Your task to perform on an android device: change notifications settings Image 0: 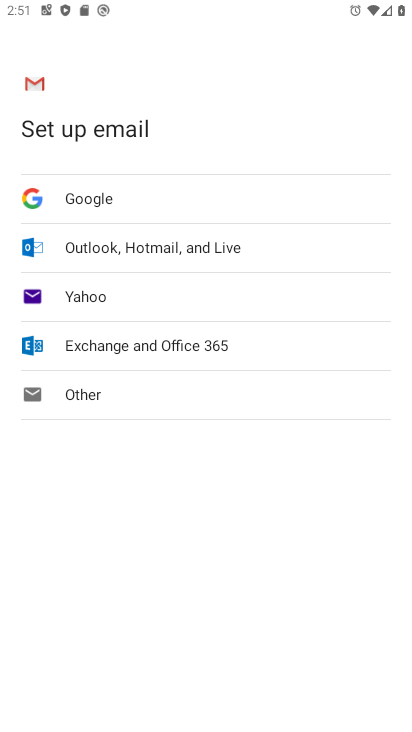
Step 0: press home button
Your task to perform on an android device: change notifications settings Image 1: 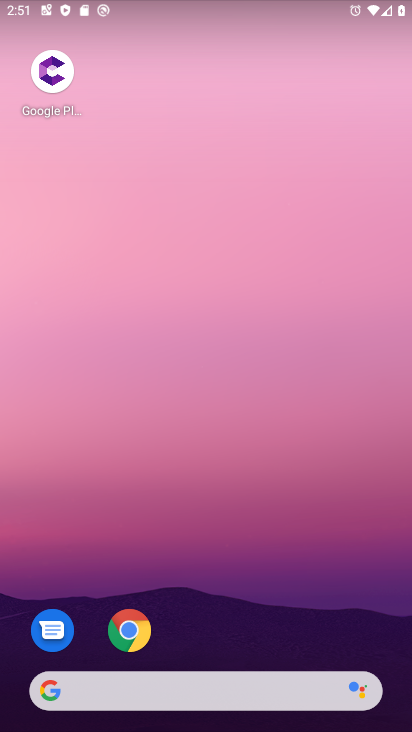
Step 1: drag from (204, 664) to (233, 240)
Your task to perform on an android device: change notifications settings Image 2: 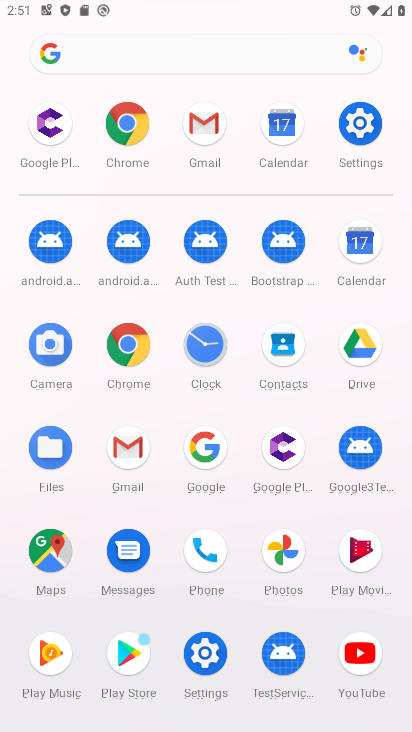
Step 2: click (358, 131)
Your task to perform on an android device: change notifications settings Image 3: 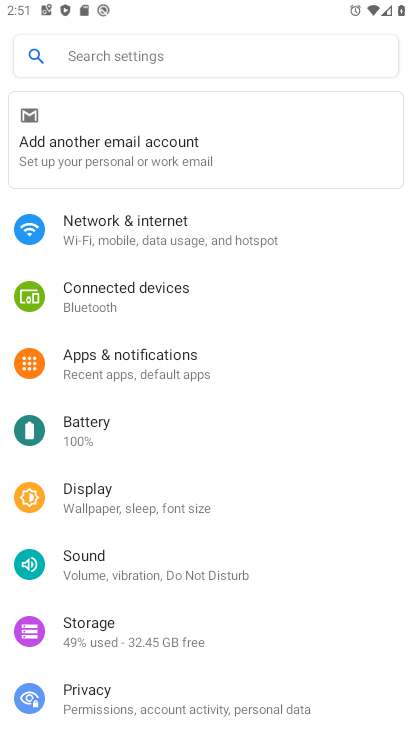
Step 3: click (118, 369)
Your task to perform on an android device: change notifications settings Image 4: 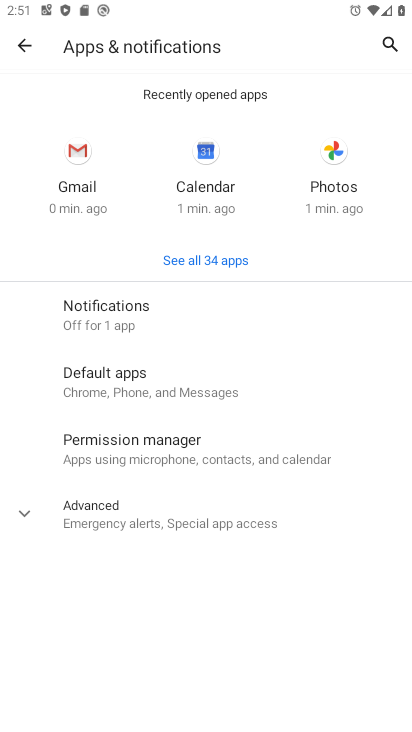
Step 4: click (135, 319)
Your task to perform on an android device: change notifications settings Image 5: 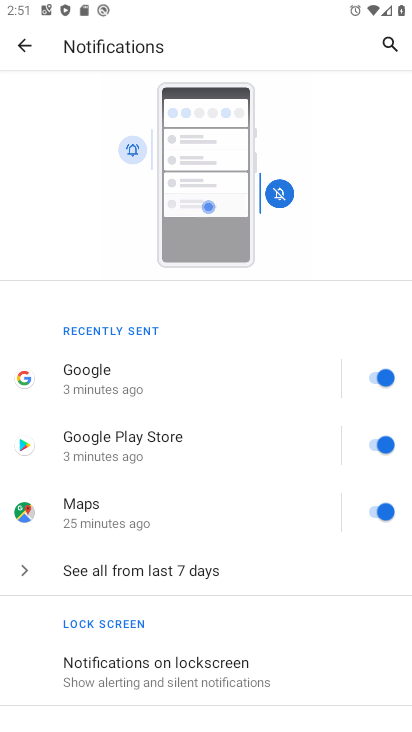
Step 5: drag from (111, 676) to (162, 330)
Your task to perform on an android device: change notifications settings Image 6: 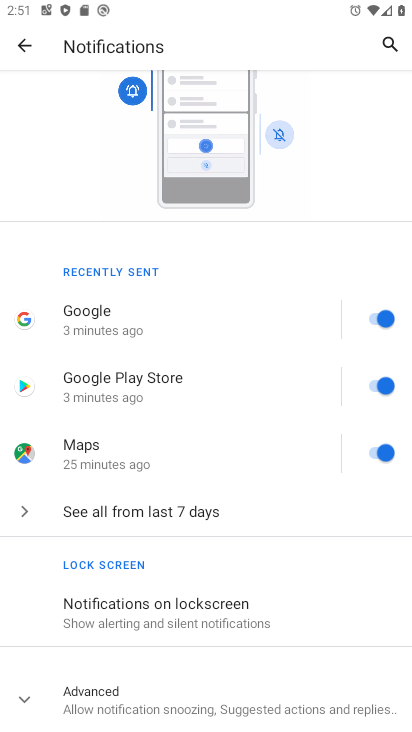
Step 6: click (107, 703)
Your task to perform on an android device: change notifications settings Image 7: 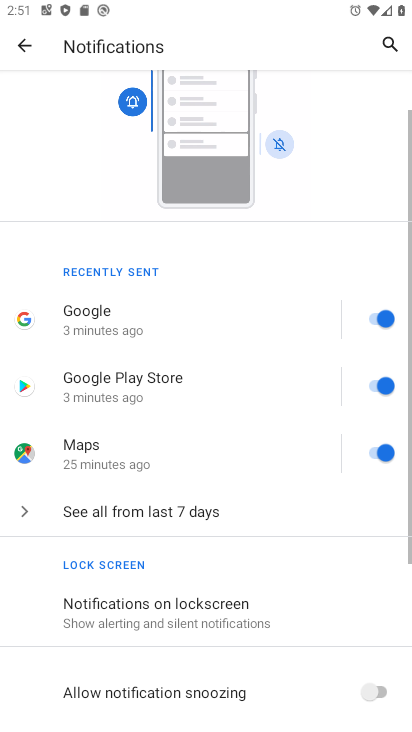
Step 7: task complete